Your task to perform on an android device: Play the last video I watched on Youtube Image 0: 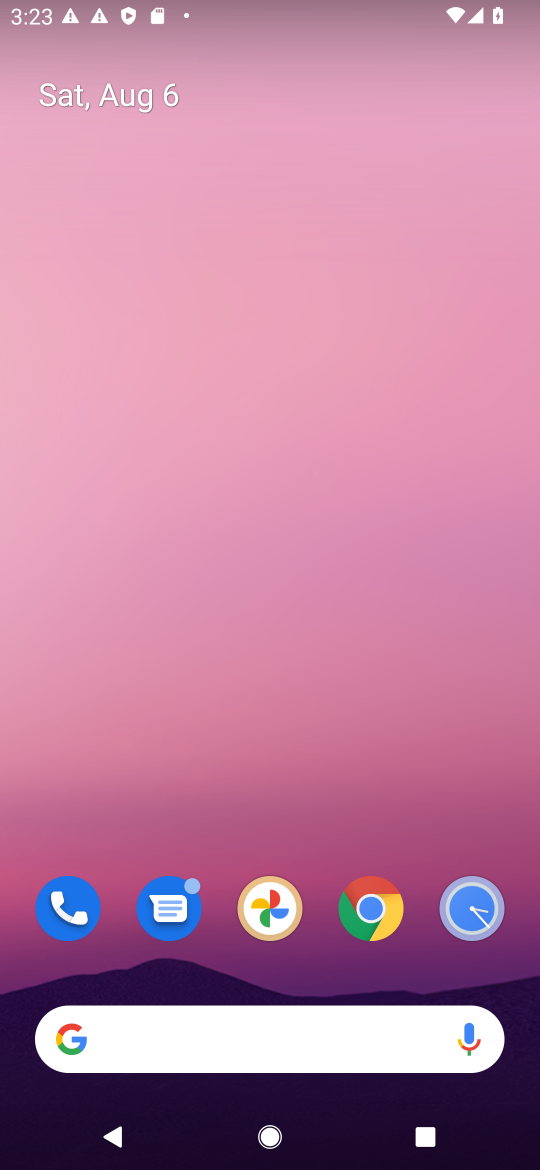
Step 0: drag from (302, 973) to (313, 18)
Your task to perform on an android device: Play the last video I watched on Youtube Image 1: 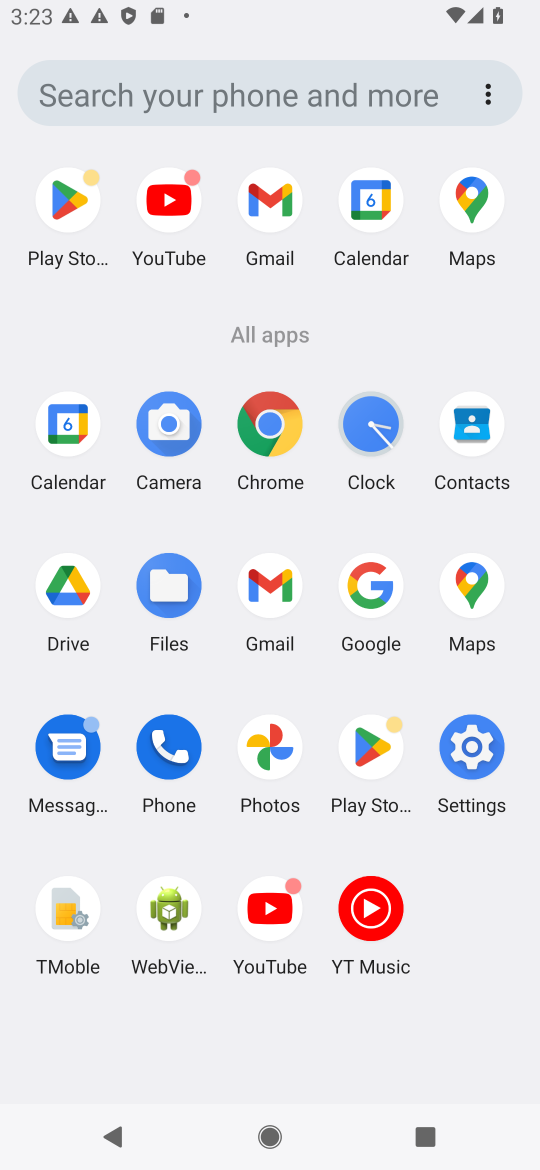
Step 1: click (286, 950)
Your task to perform on an android device: Play the last video I watched on Youtube Image 2: 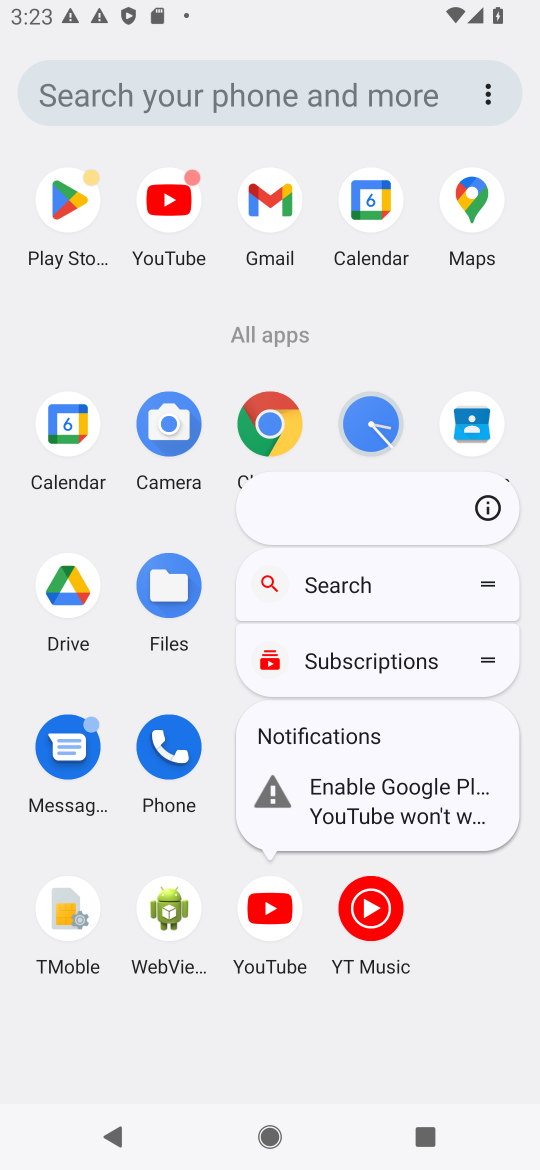
Step 2: click (263, 908)
Your task to perform on an android device: Play the last video I watched on Youtube Image 3: 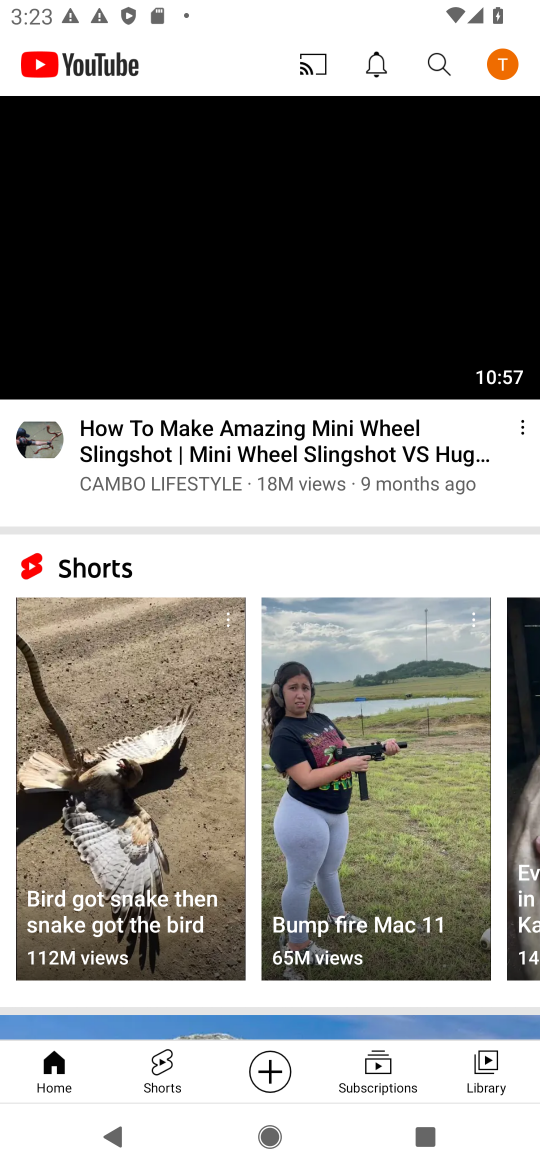
Step 3: click (491, 1063)
Your task to perform on an android device: Play the last video I watched on Youtube Image 4: 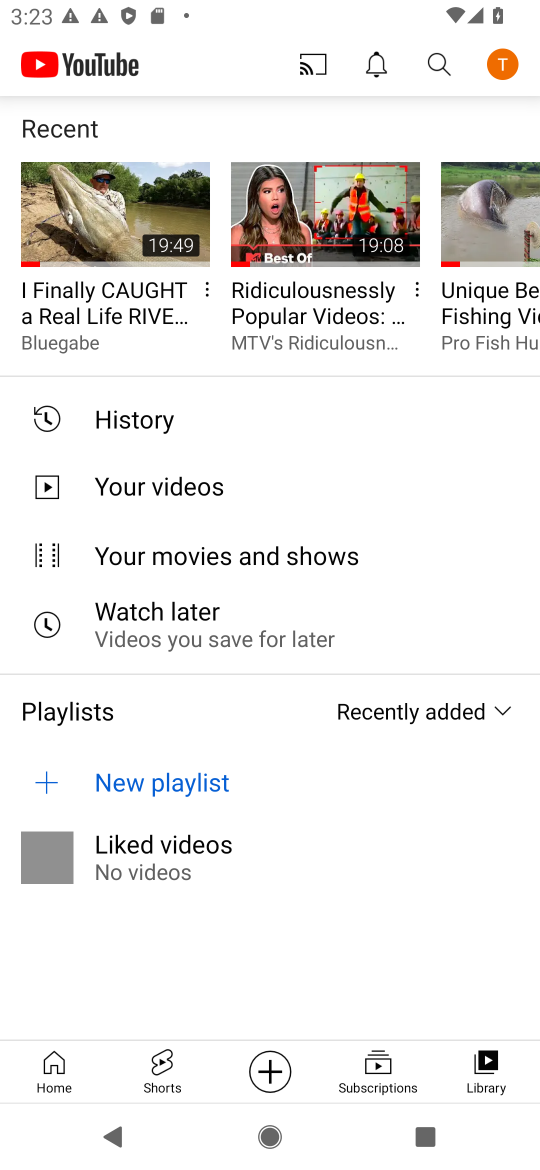
Step 4: click (135, 235)
Your task to perform on an android device: Play the last video I watched on Youtube Image 5: 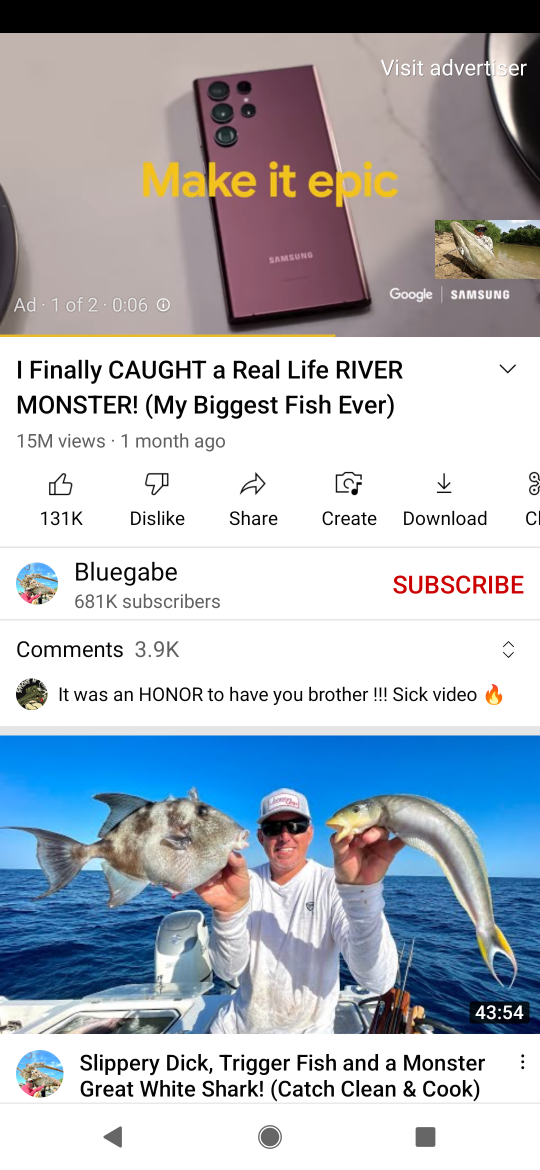
Step 5: task complete